Your task to perform on an android device: Turn off the flashlight Image 0: 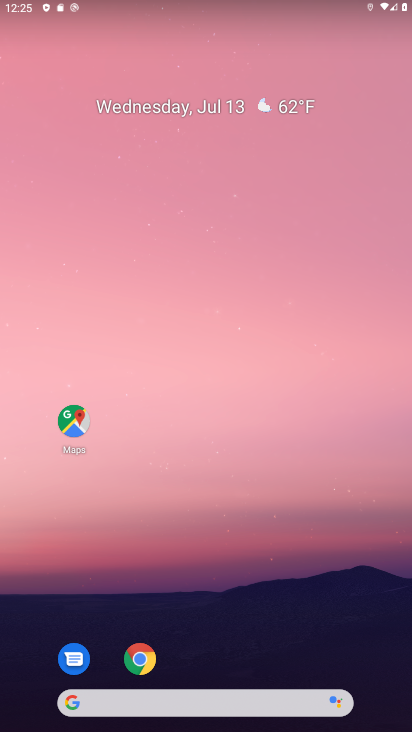
Step 0: drag from (250, 546) to (216, 193)
Your task to perform on an android device: Turn off the flashlight Image 1: 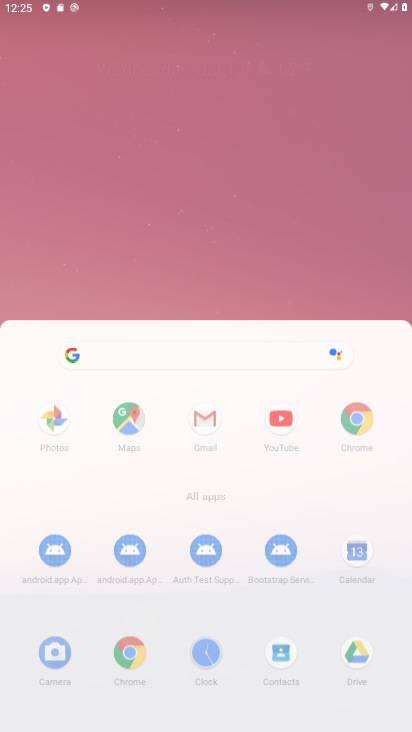
Step 1: task complete